Your task to perform on an android device: How much does a 3 bedroom apartment rent for in Dallas? Image 0: 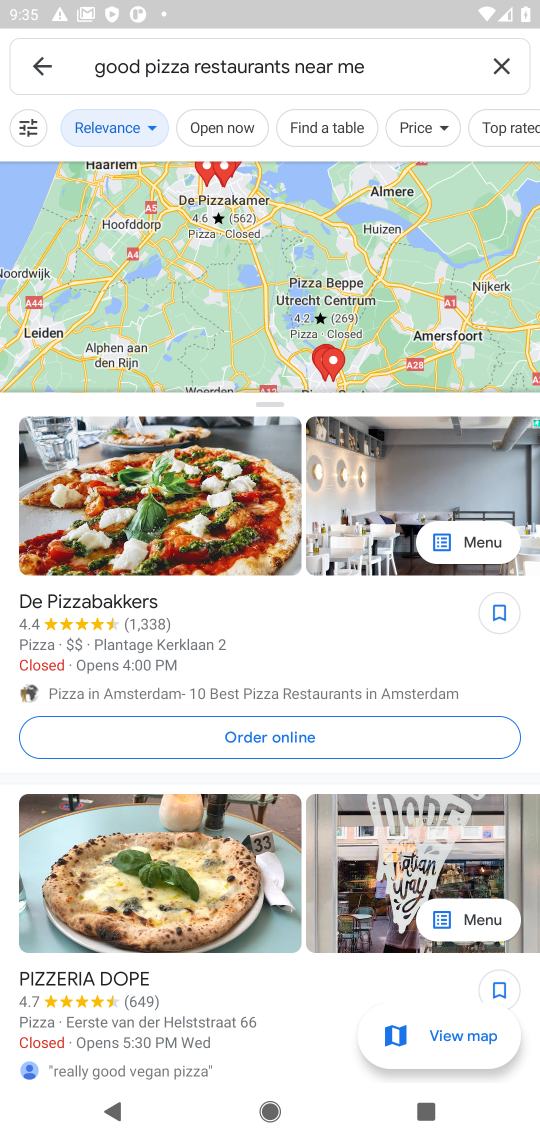
Step 0: press home button
Your task to perform on an android device: How much does a 3 bedroom apartment rent for in Dallas? Image 1: 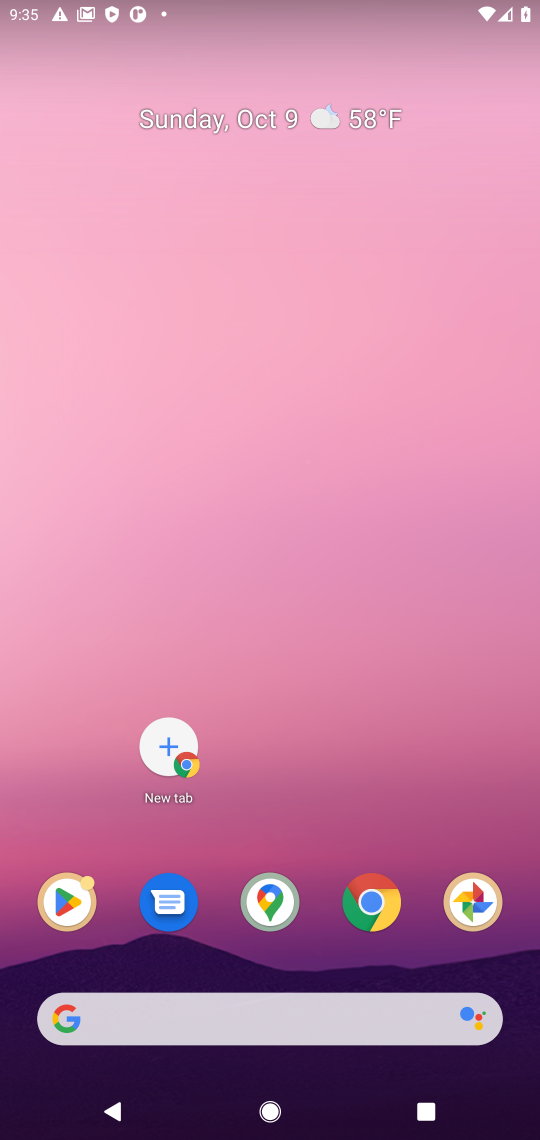
Step 1: click (365, 902)
Your task to perform on an android device: How much does a 3 bedroom apartment rent for in Dallas? Image 2: 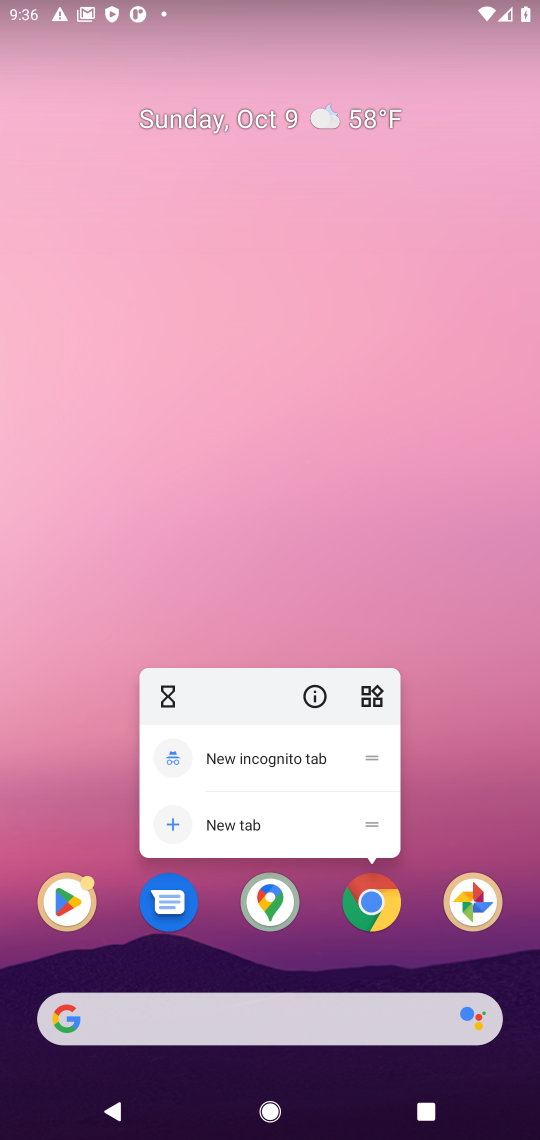
Step 2: click (446, 719)
Your task to perform on an android device: How much does a 3 bedroom apartment rent for in Dallas? Image 3: 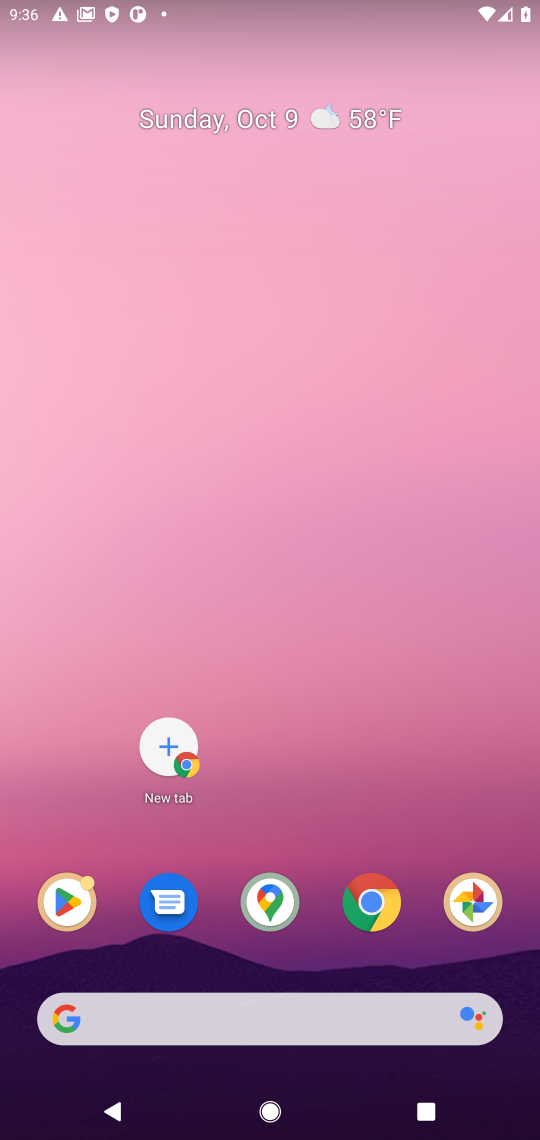
Step 3: click (446, 719)
Your task to perform on an android device: How much does a 3 bedroom apartment rent for in Dallas? Image 4: 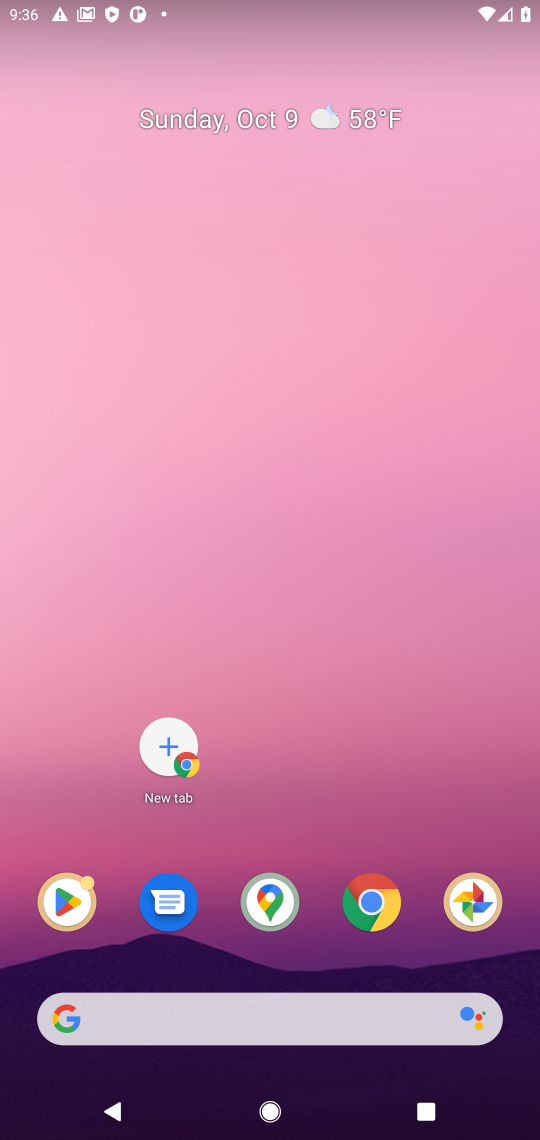
Step 4: click (374, 904)
Your task to perform on an android device: How much does a 3 bedroom apartment rent for in Dallas? Image 5: 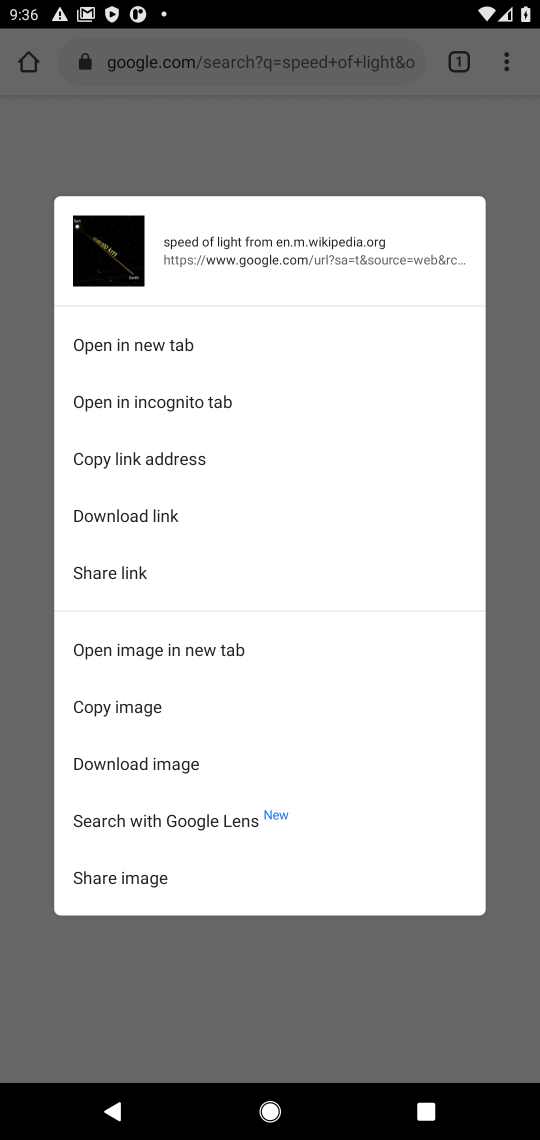
Step 5: click (265, 112)
Your task to perform on an android device: How much does a 3 bedroom apartment rent for in Dallas? Image 6: 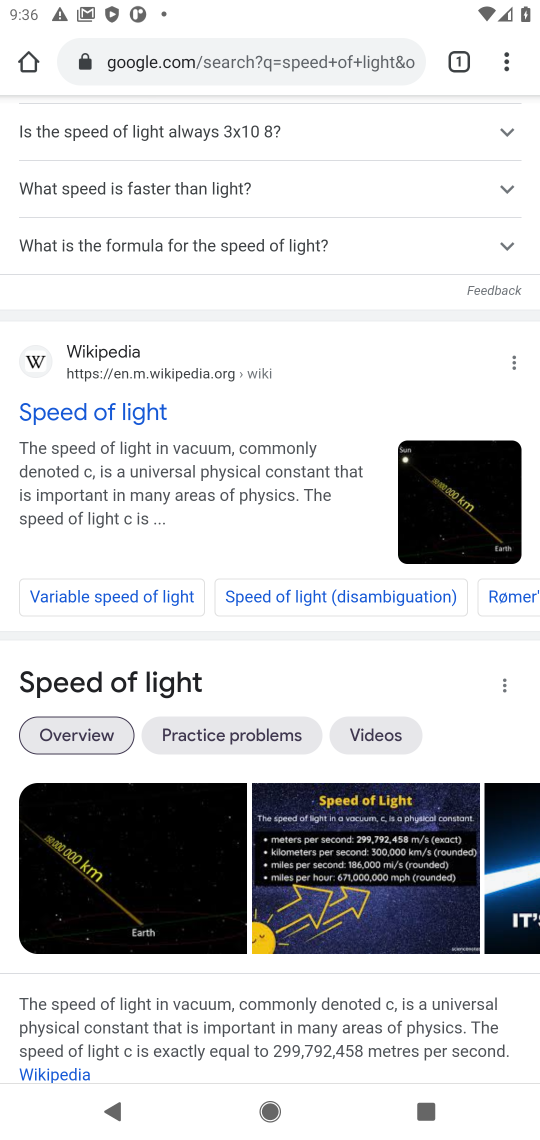
Step 6: click (245, 63)
Your task to perform on an android device: How much does a 3 bedroom apartment rent for in Dallas? Image 7: 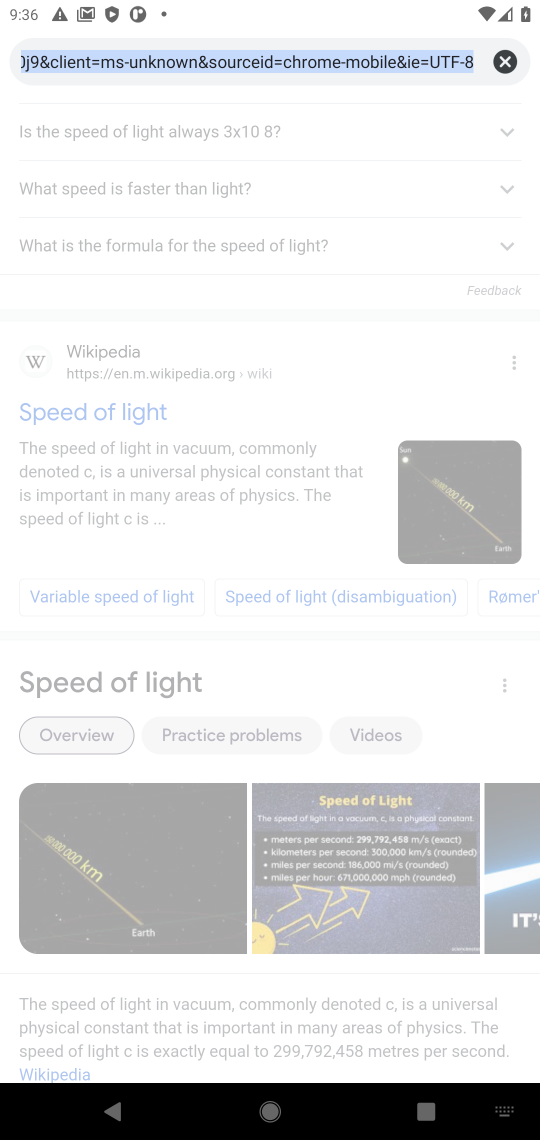
Step 7: type "3 bedroom apartment rent for in Dallas"
Your task to perform on an android device: How much does a 3 bedroom apartment rent for in Dallas? Image 8: 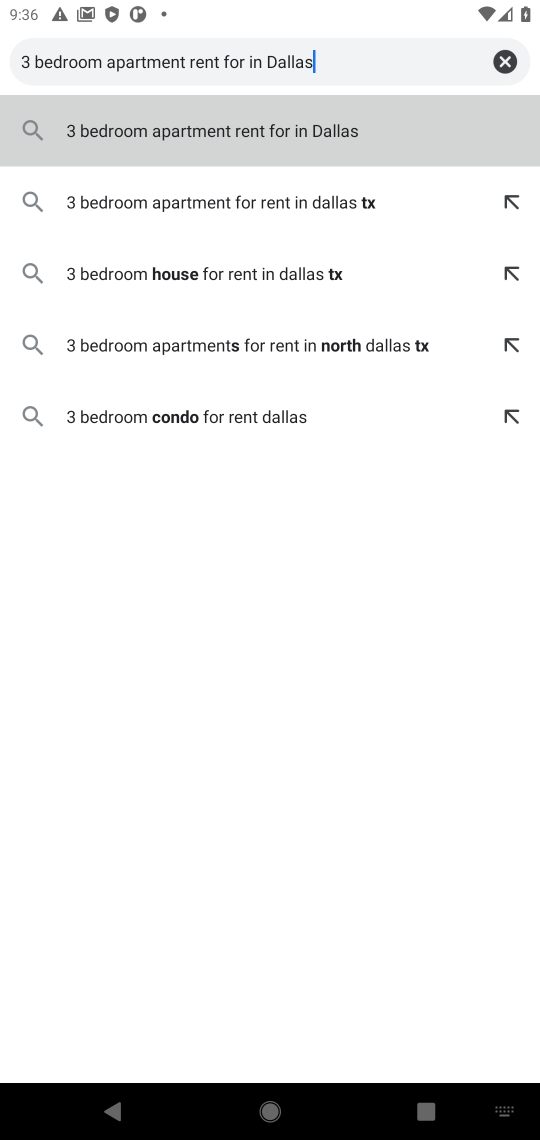
Step 8: click (284, 118)
Your task to perform on an android device: How much does a 3 bedroom apartment rent for in Dallas? Image 9: 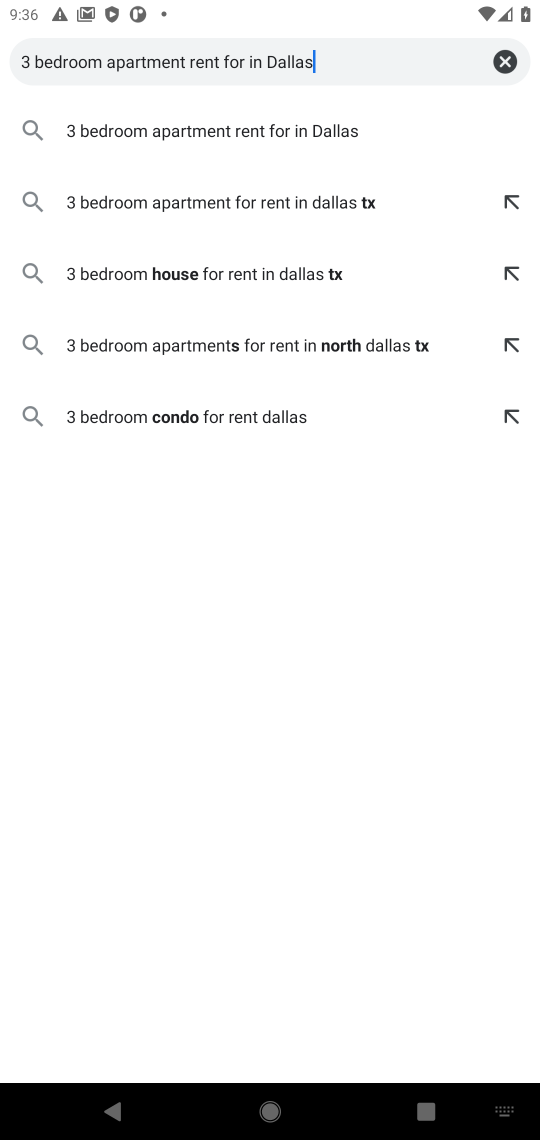
Step 9: press enter
Your task to perform on an android device: How much does a 3 bedroom apartment rent for in Dallas? Image 10: 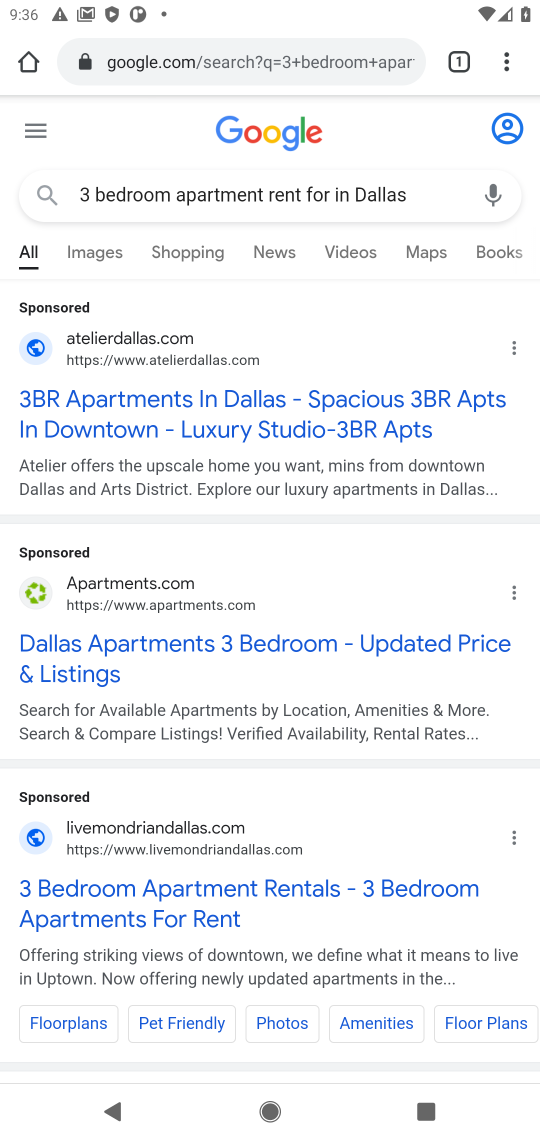
Step 10: drag from (357, 613) to (413, 349)
Your task to perform on an android device: How much does a 3 bedroom apartment rent for in Dallas? Image 11: 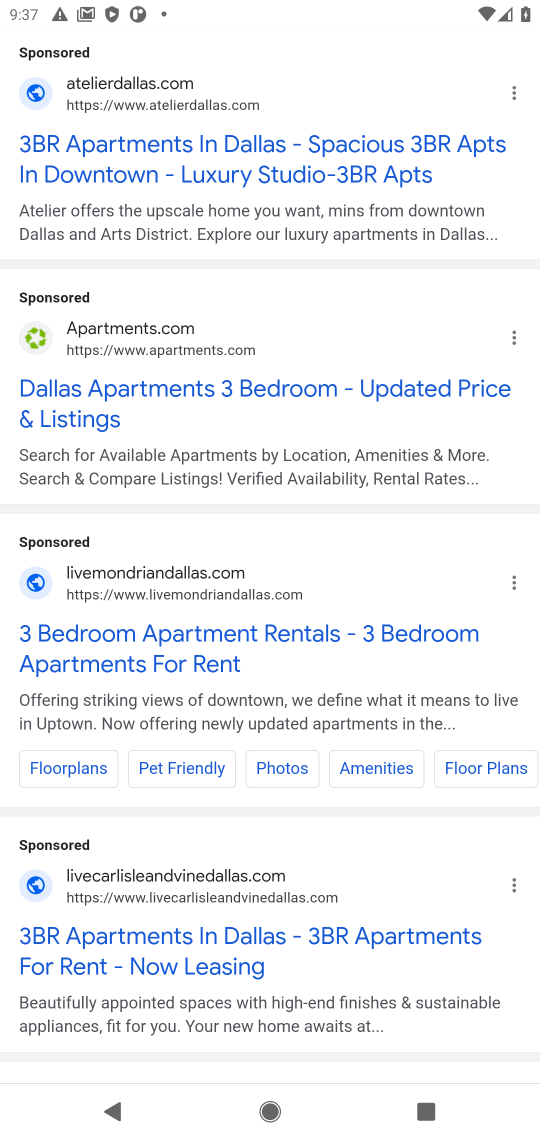
Step 11: click (329, 398)
Your task to perform on an android device: How much does a 3 bedroom apartment rent for in Dallas? Image 12: 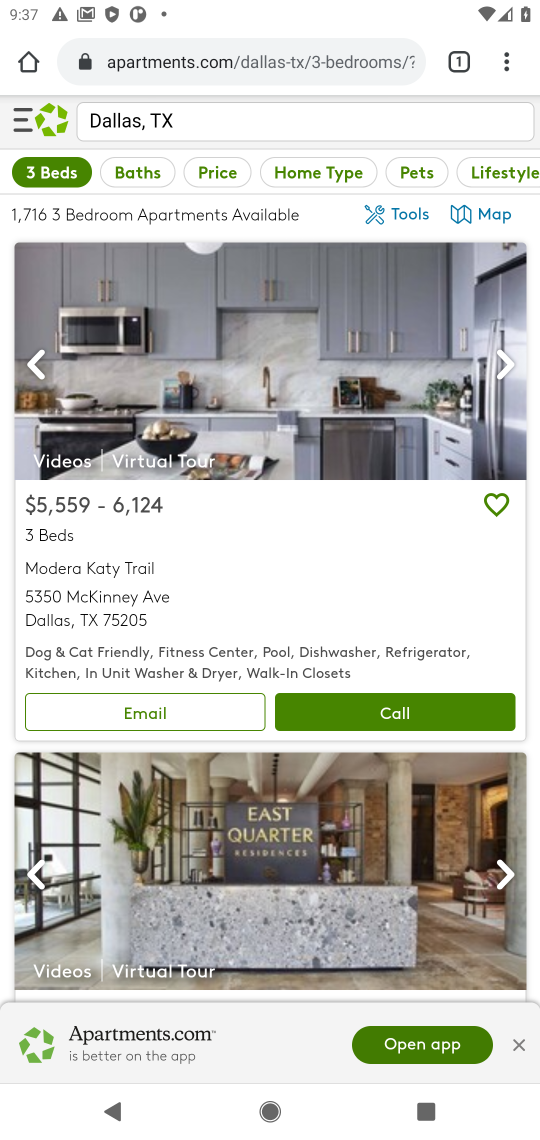
Step 12: drag from (277, 587) to (249, 171)
Your task to perform on an android device: How much does a 3 bedroom apartment rent for in Dallas? Image 13: 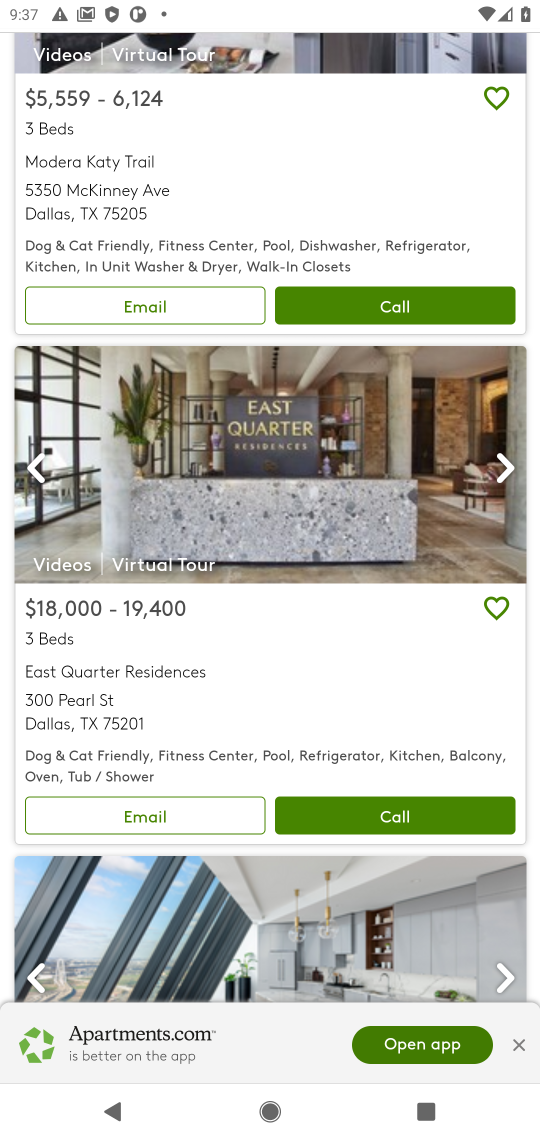
Step 13: drag from (311, 696) to (355, 376)
Your task to perform on an android device: How much does a 3 bedroom apartment rent for in Dallas? Image 14: 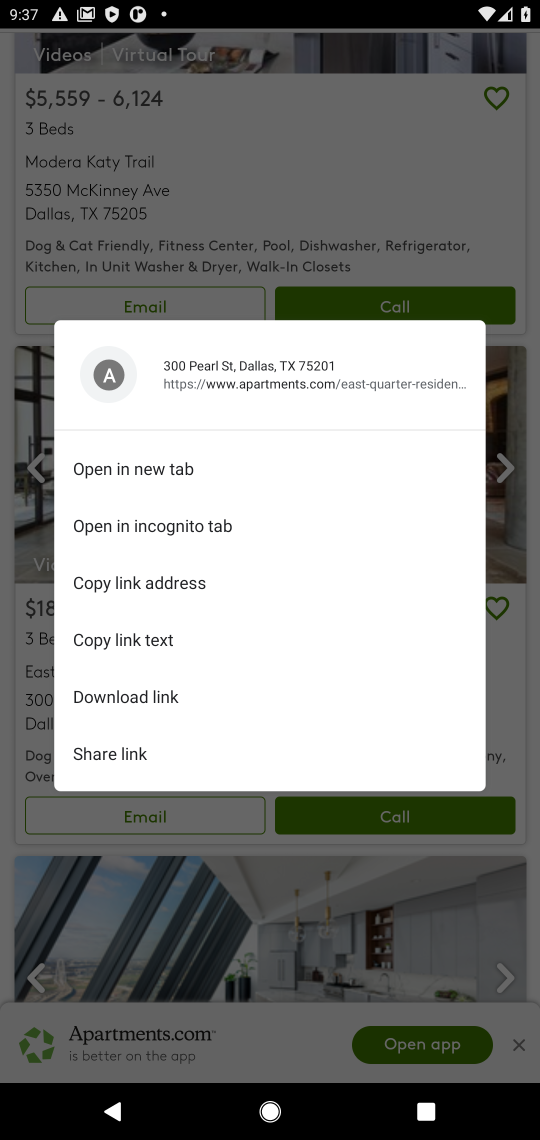
Step 14: click (376, 162)
Your task to perform on an android device: How much does a 3 bedroom apartment rent for in Dallas? Image 15: 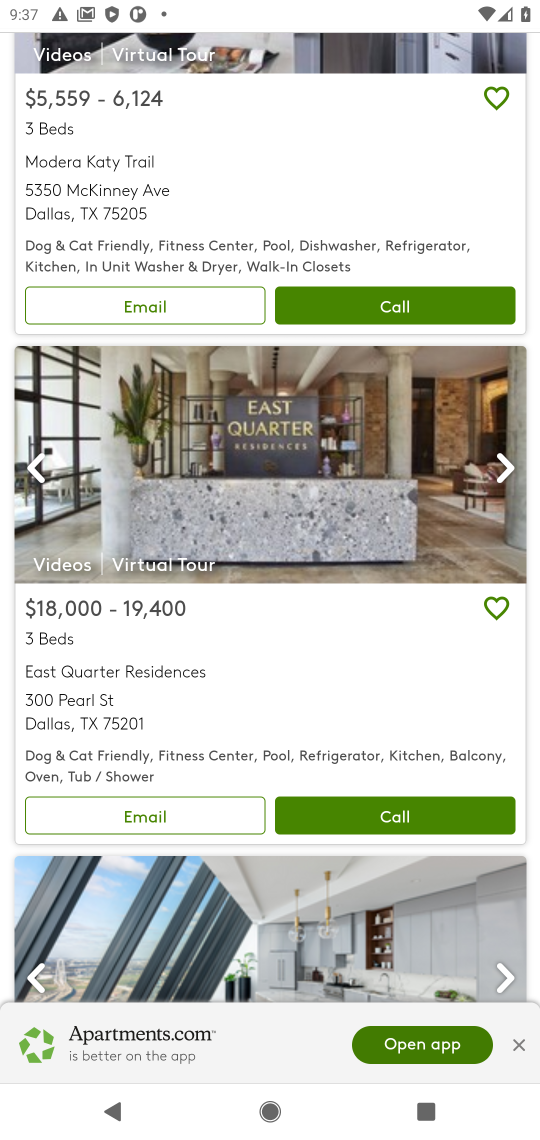
Step 15: task complete